Your task to perform on an android device: When is my next appointment? Image 0: 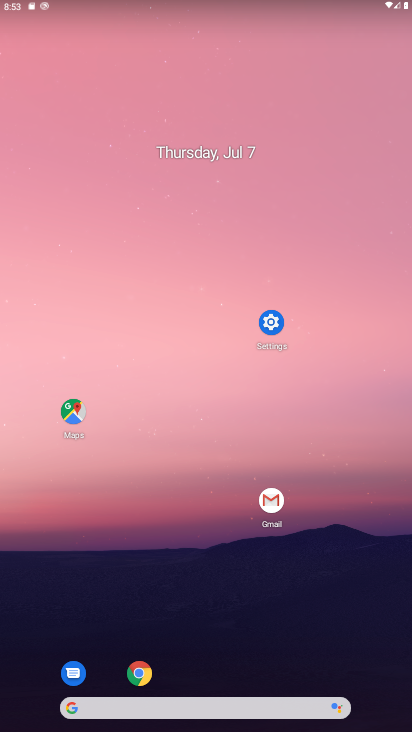
Step 0: drag from (377, 686) to (357, 82)
Your task to perform on an android device: When is my next appointment? Image 1: 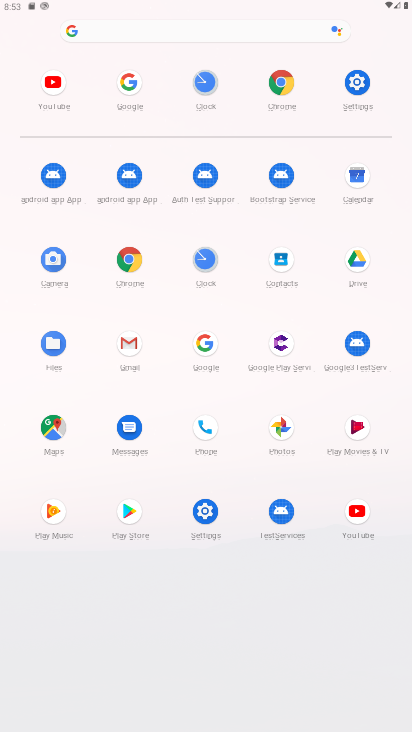
Step 1: click (354, 68)
Your task to perform on an android device: When is my next appointment? Image 2: 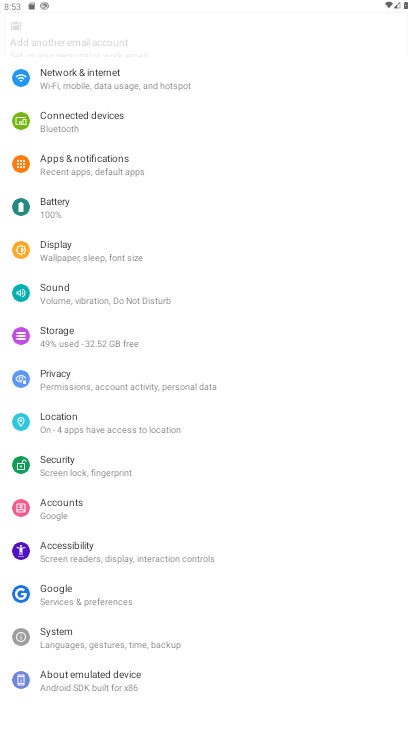
Step 2: press back button
Your task to perform on an android device: When is my next appointment? Image 3: 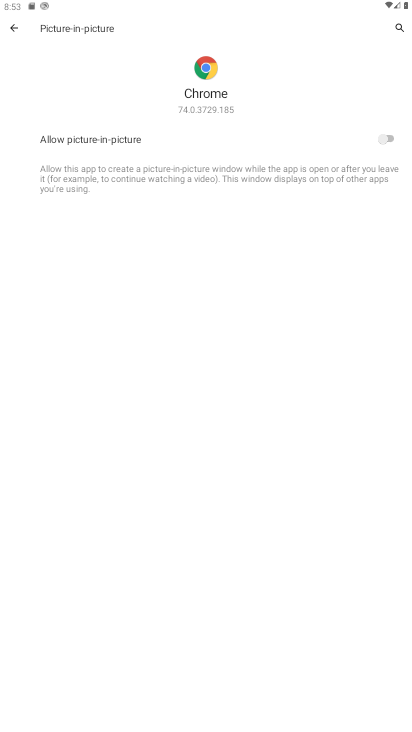
Step 3: press back button
Your task to perform on an android device: When is my next appointment? Image 4: 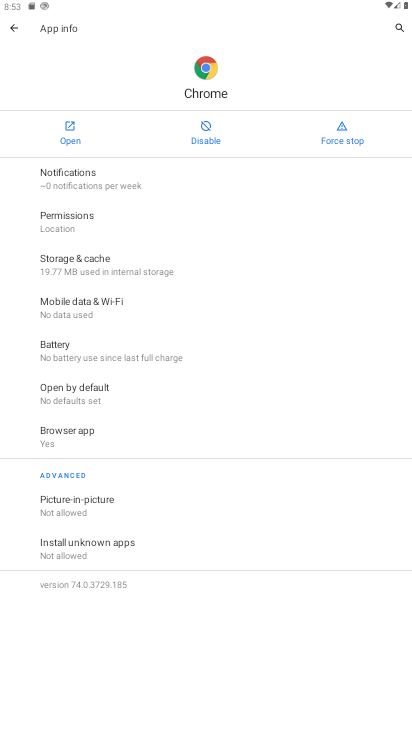
Step 4: press back button
Your task to perform on an android device: When is my next appointment? Image 5: 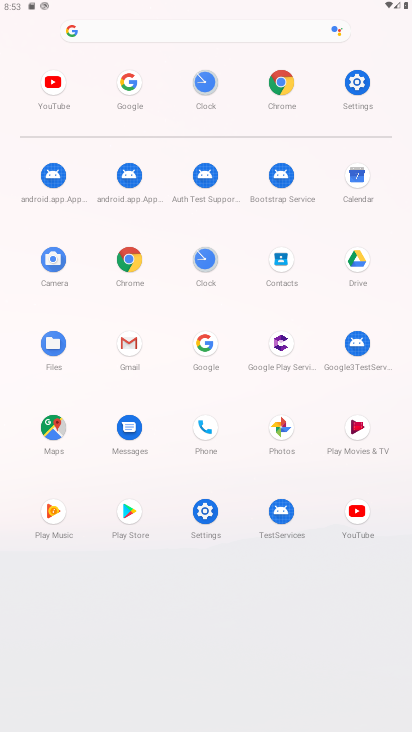
Step 5: click (355, 175)
Your task to perform on an android device: When is my next appointment? Image 6: 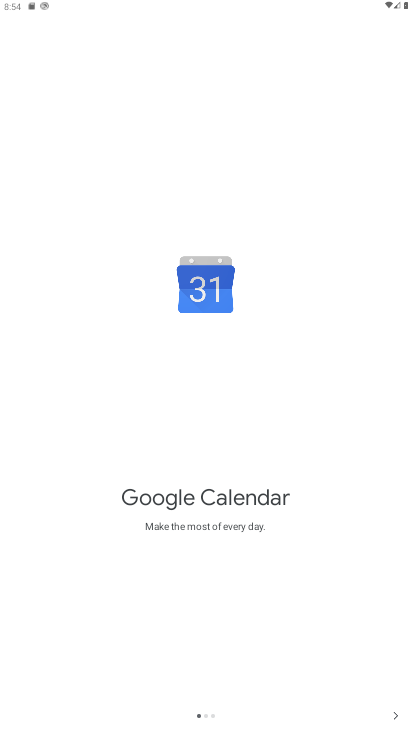
Step 6: click (391, 712)
Your task to perform on an android device: When is my next appointment? Image 7: 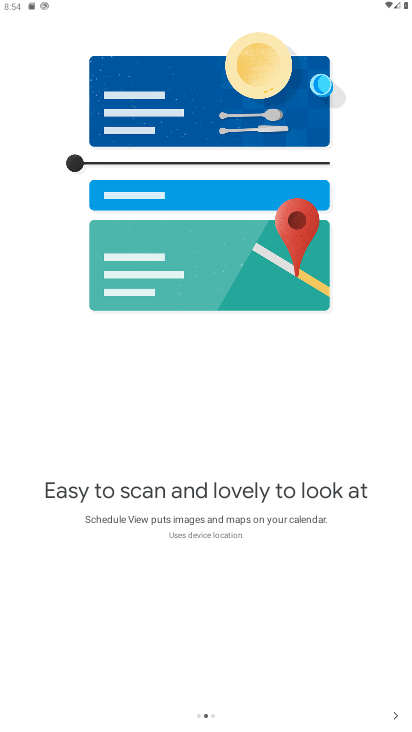
Step 7: click (392, 714)
Your task to perform on an android device: When is my next appointment? Image 8: 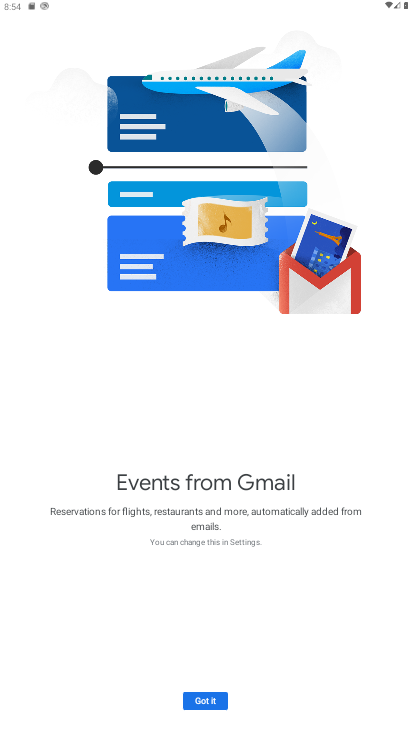
Step 8: click (202, 700)
Your task to perform on an android device: When is my next appointment? Image 9: 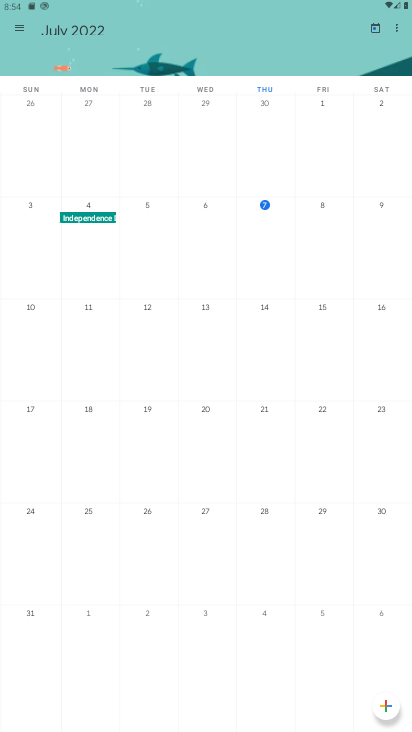
Step 9: click (20, 27)
Your task to perform on an android device: When is my next appointment? Image 10: 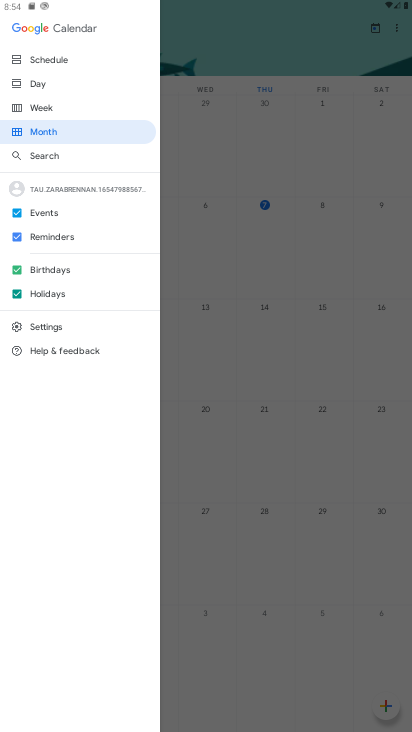
Step 10: click (12, 295)
Your task to perform on an android device: When is my next appointment? Image 11: 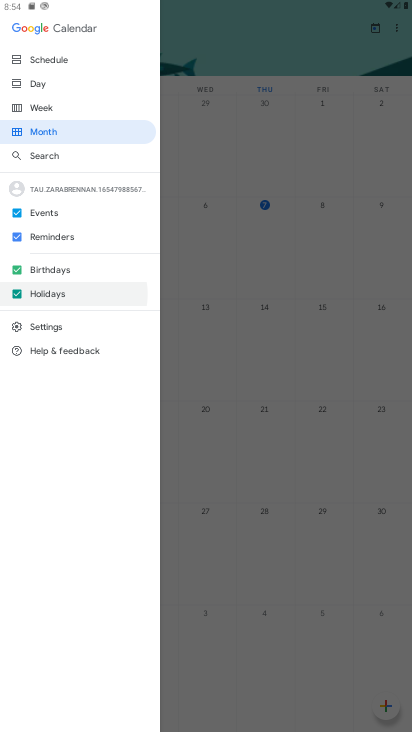
Step 11: click (17, 270)
Your task to perform on an android device: When is my next appointment? Image 12: 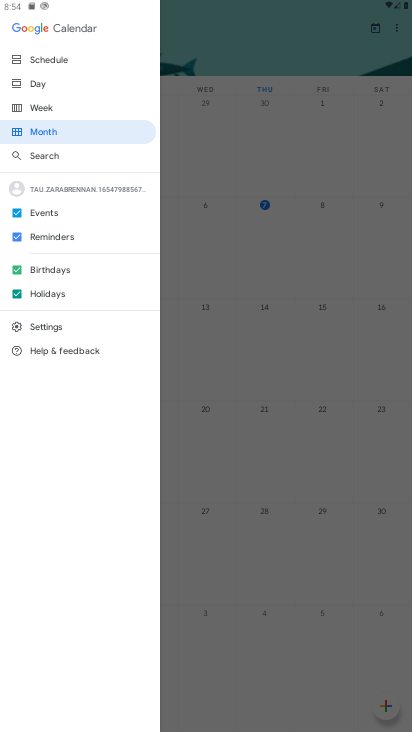
Step 12: click (16, 228)
Your task to perform on an android device: When is my next appointment? Image 13: 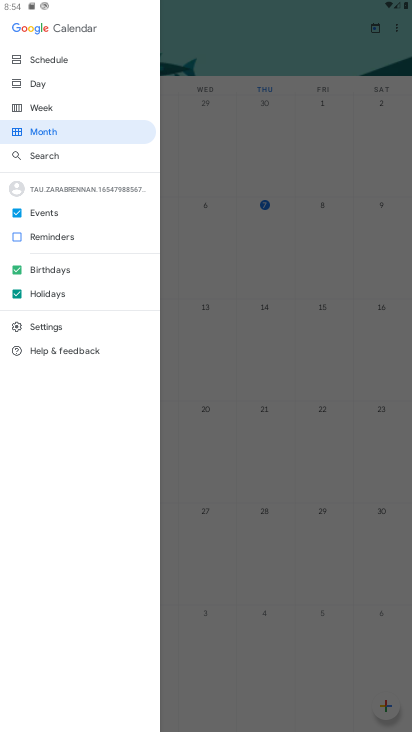
Step 13: click (15, 291)
Your task to perform on an android device: When is my next appointment? Image 14: 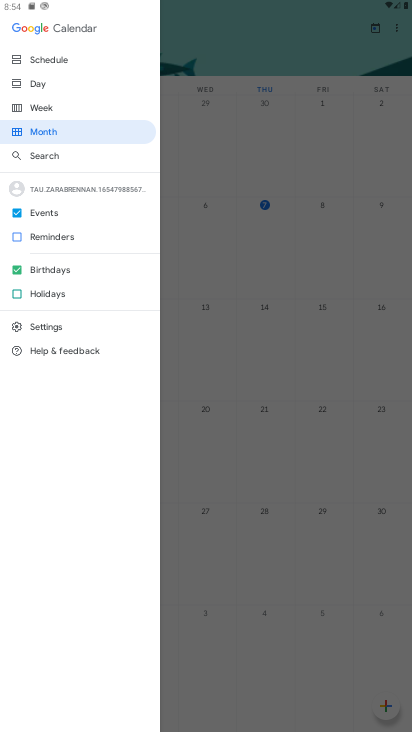
Step 14: click (16, 267)
Your task to perform on an android device: When is my next appointment? Image 15: 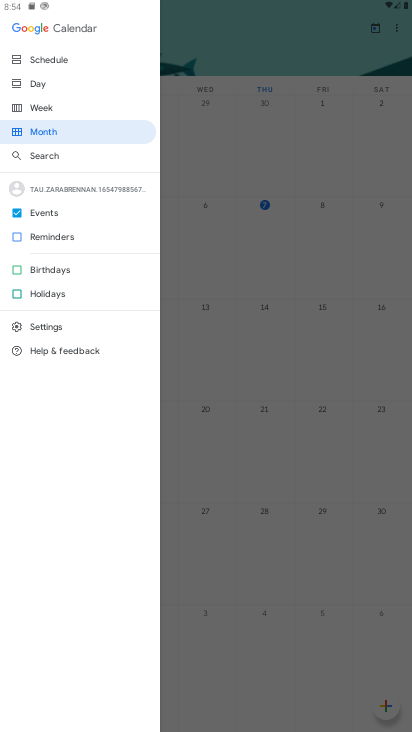
Step 15: click (48, 57)
Your task to perform on an android device: When is my next appointment? Image 16: 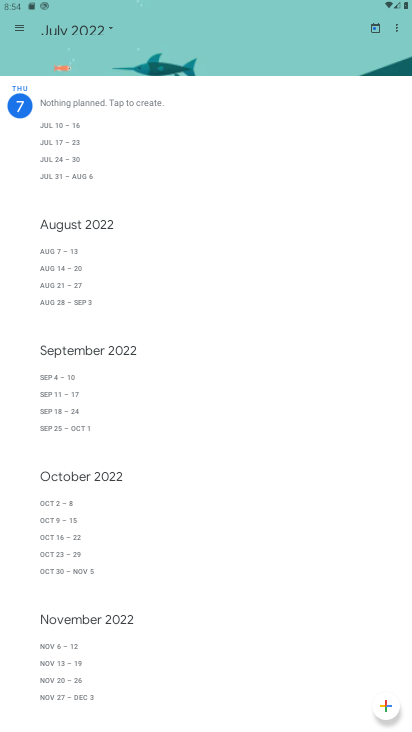
Step 16: task complete